Your task to perform on an android device: Add "razer naga" to the cart on amazon, then select checkout. Image 0: 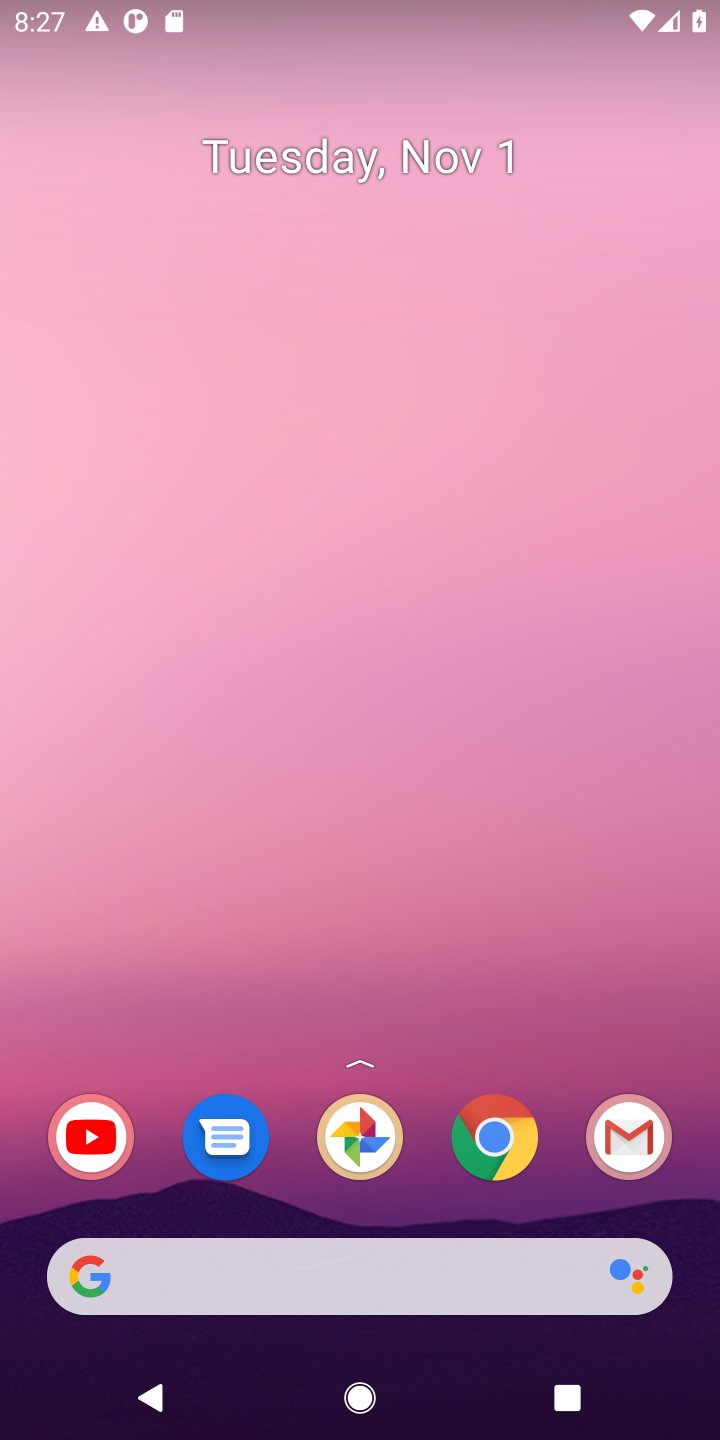
Step 0: click (305, 1266)
Your task to perform on an android device: Add "razer naga" to the cart on amazon, then select checkout. Image 1: 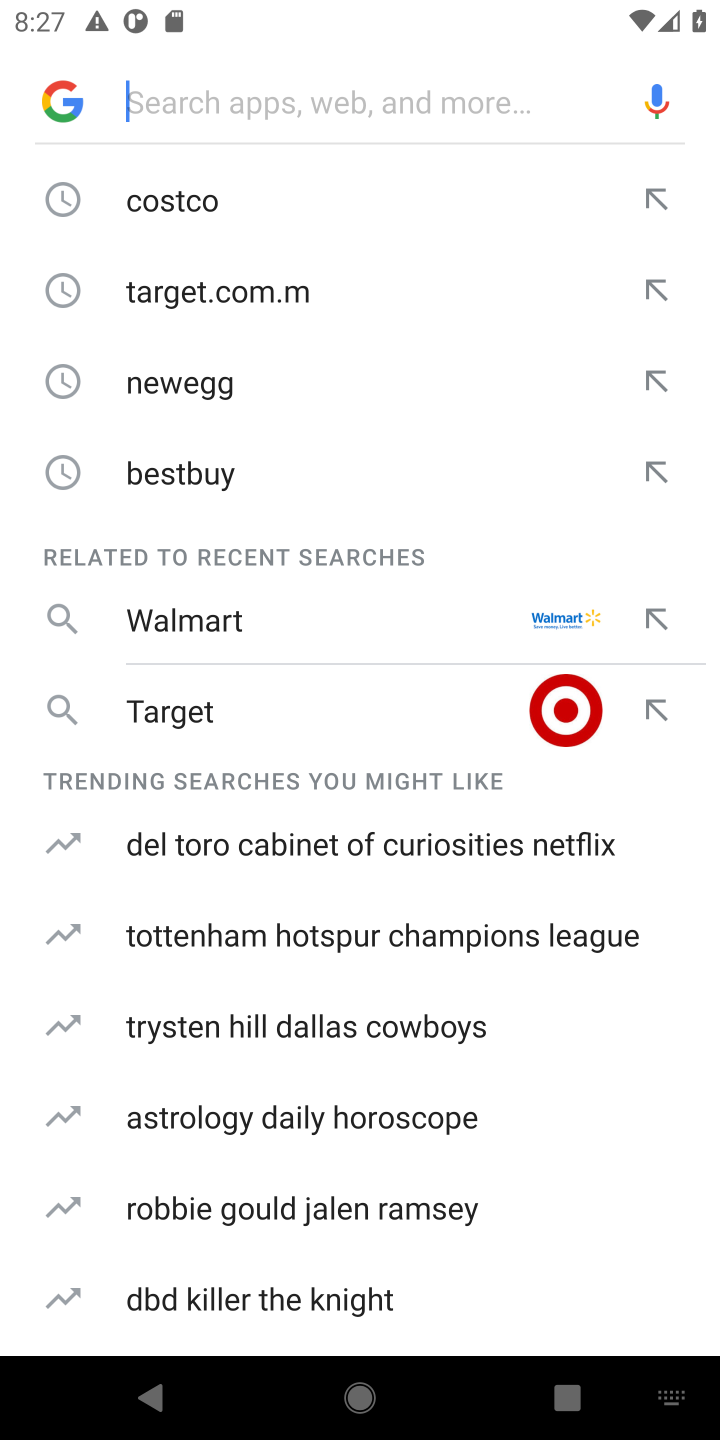
Step 1: type "amazon"
Your task to perform on an android device: Add "razer naga" to the cart on amazon, then select checkout. Image 2: 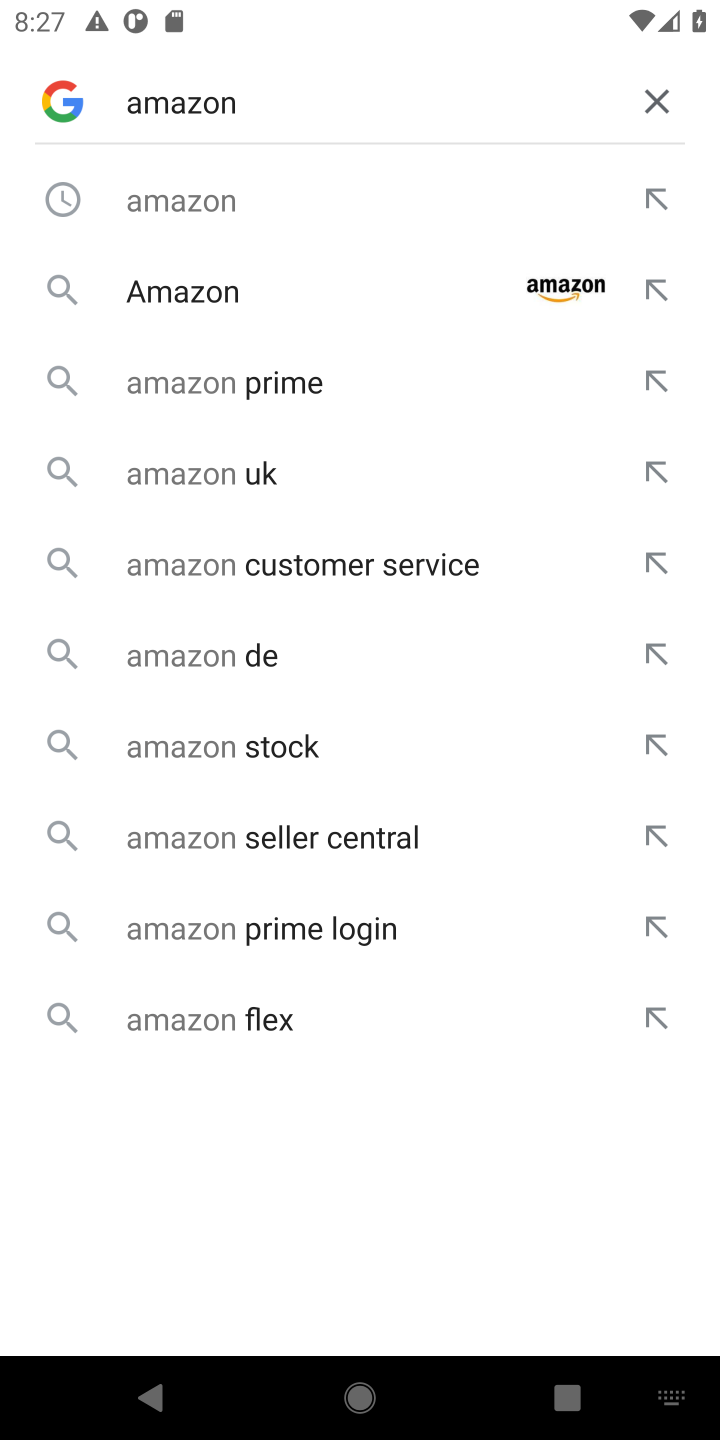
Step 2: click (218, 293)
Your task to perform on an android device: Add "razer naga" to the cart on amazon, then select checkout. Image 3: 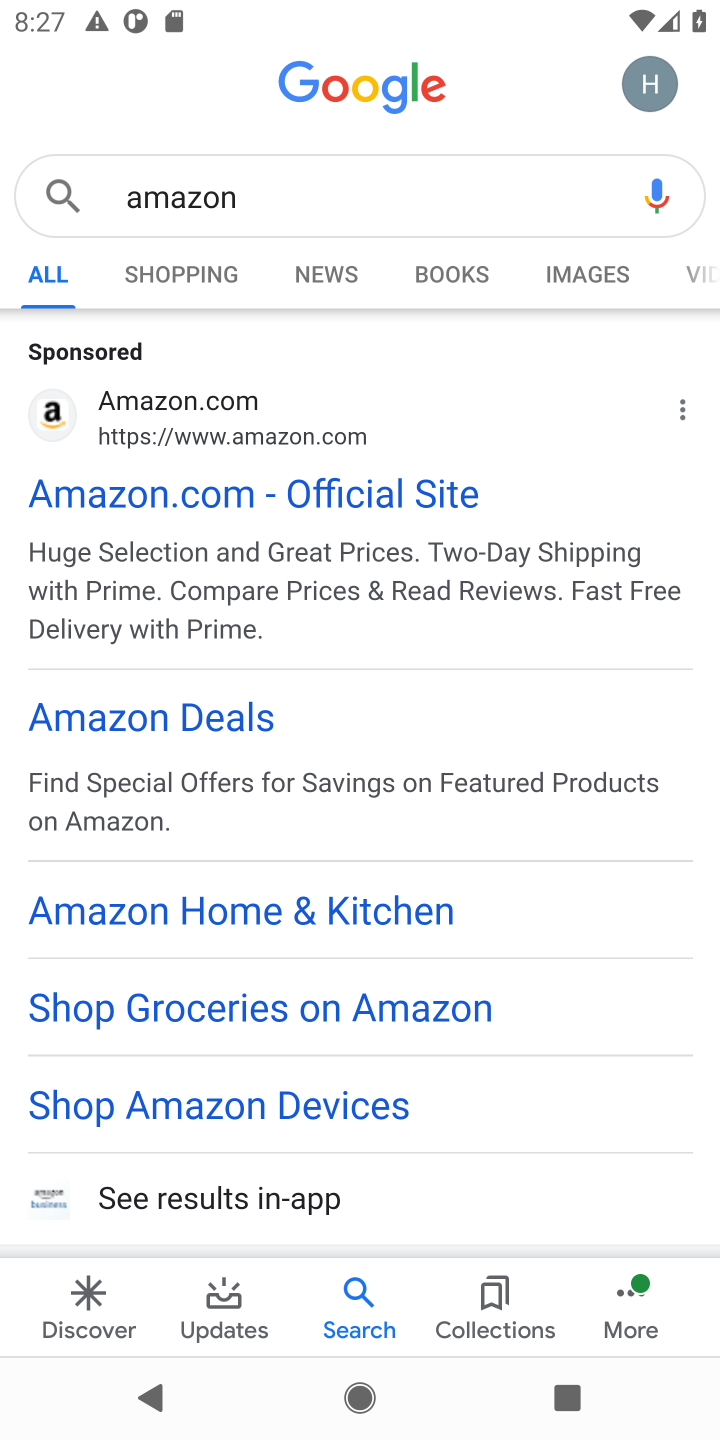
Step 3: click (135, 396)
Your task to perform on an android device: Add "razer naga" to the cart on amazon, then select checkout. Image 4: 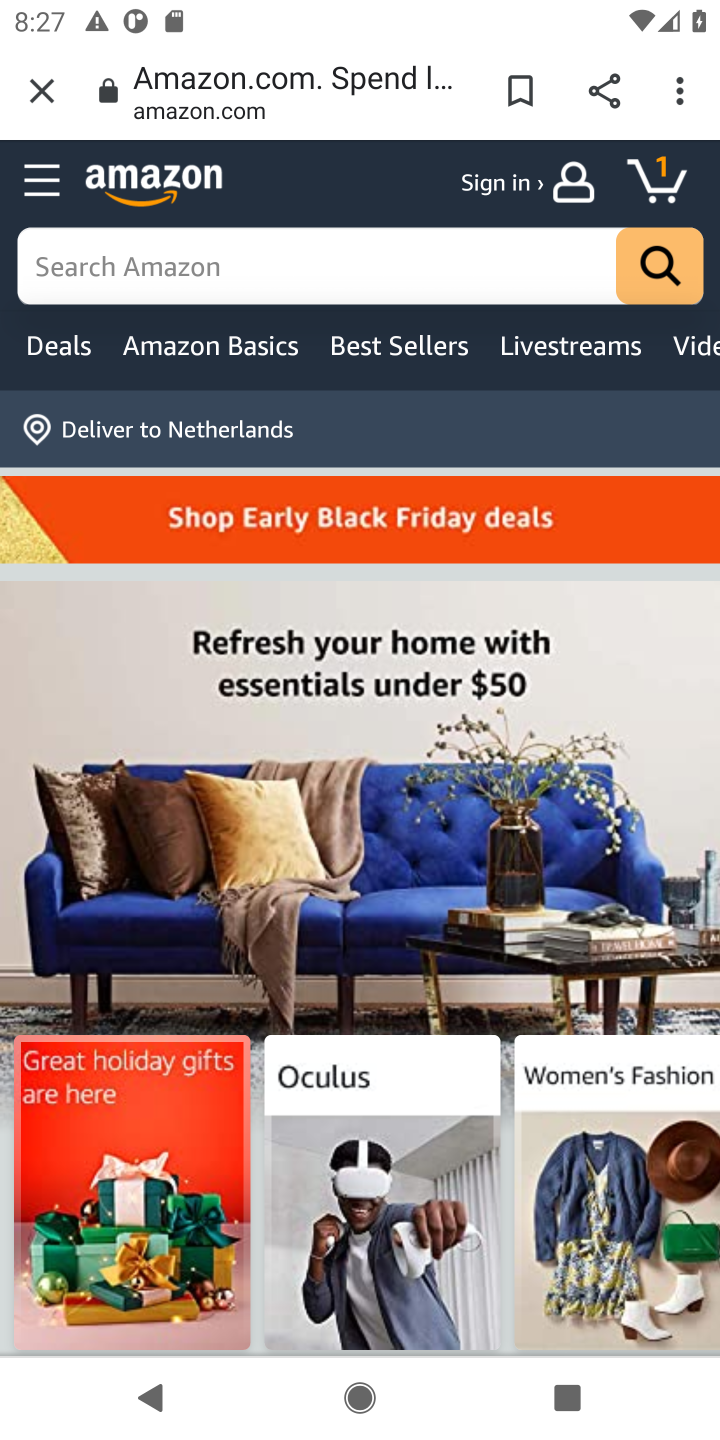
Step 4: click (295, 253)
Your task to perform on an android device: Add "razer naga" to the cart on amazon, then select checkout. Image 5: 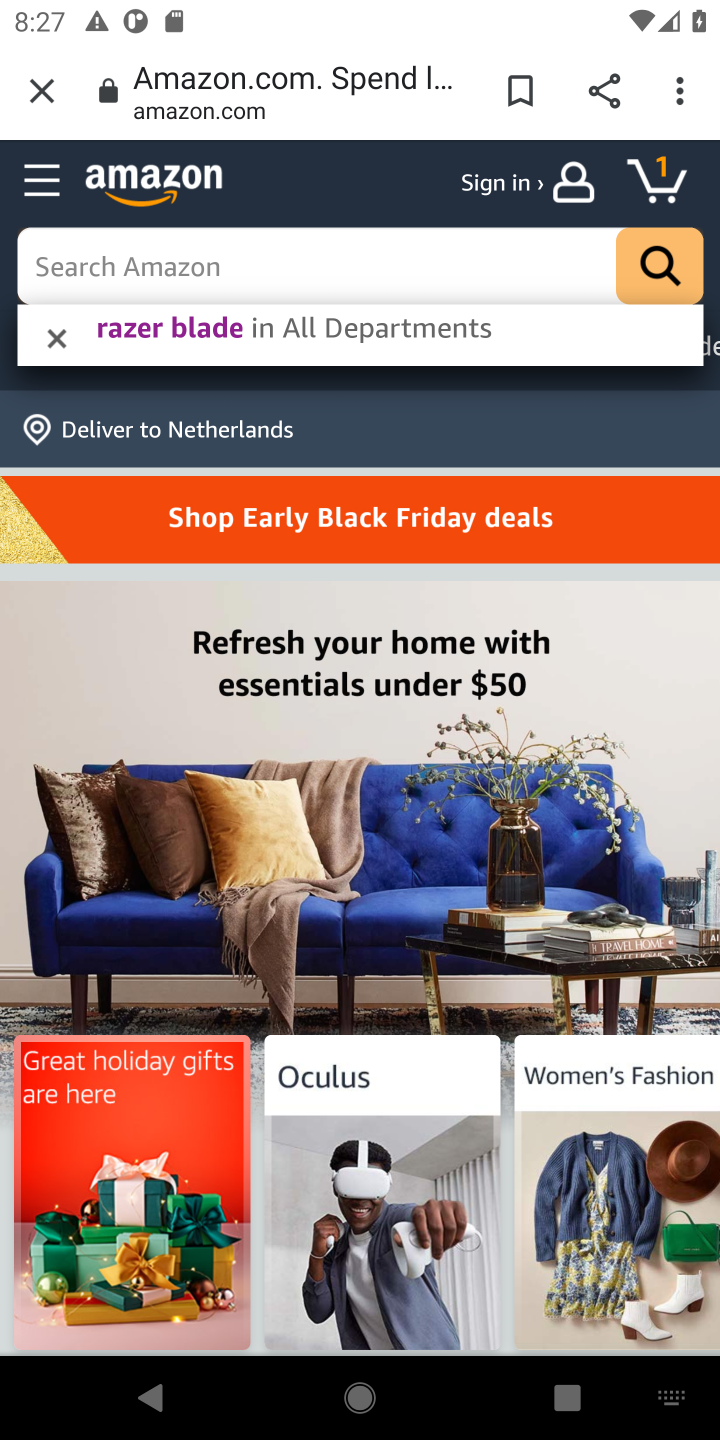
Step 5: type "razer naga"
Your task to perform on an android device: Add "razer naga" to the cart on amazon, then select checkout. Image 6: 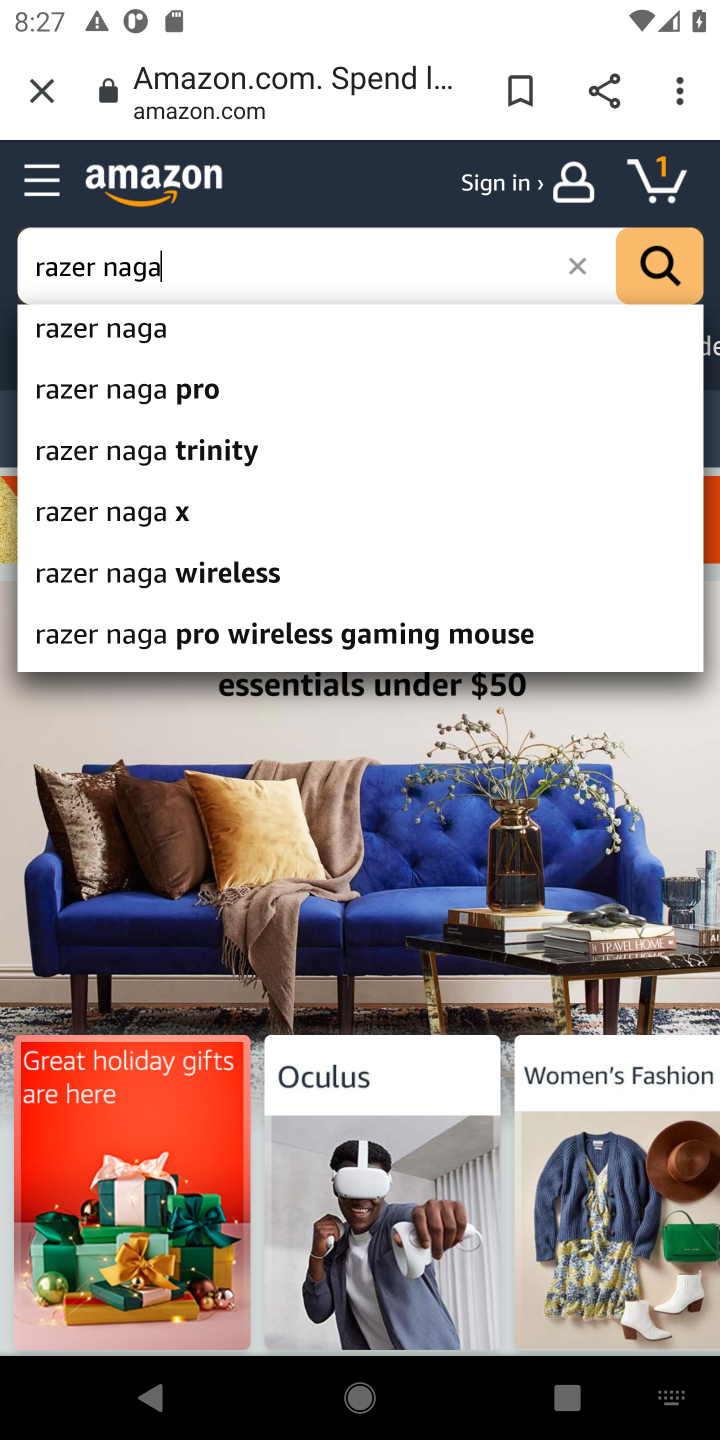
Step 6: click (139, 330)
Your task to perform on an android device: Add "razer naga" to the cart on amazon, then select checkout. Image 7: 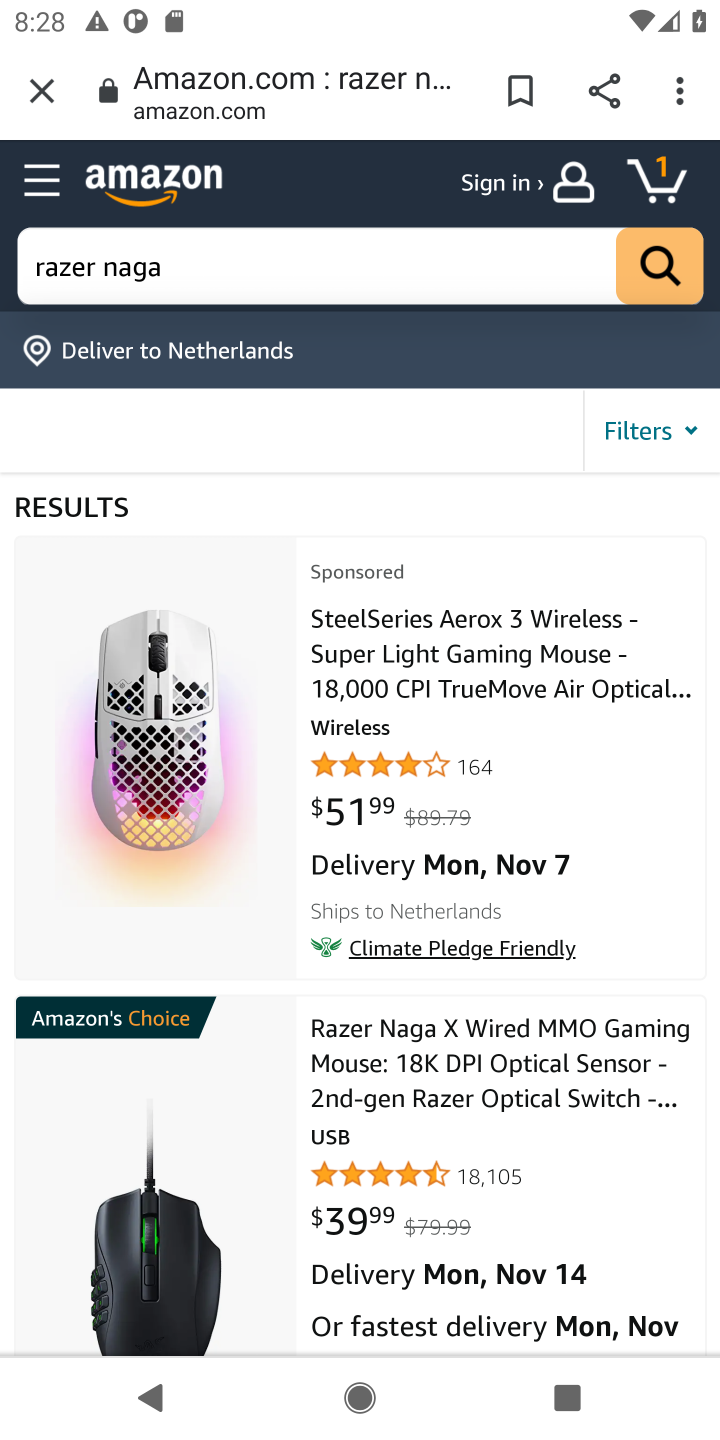
Step 7: click (414, 668)
Your task to perform on an android device: Add "razer naga" to the cart on amazon, then select checkout. Image 8: 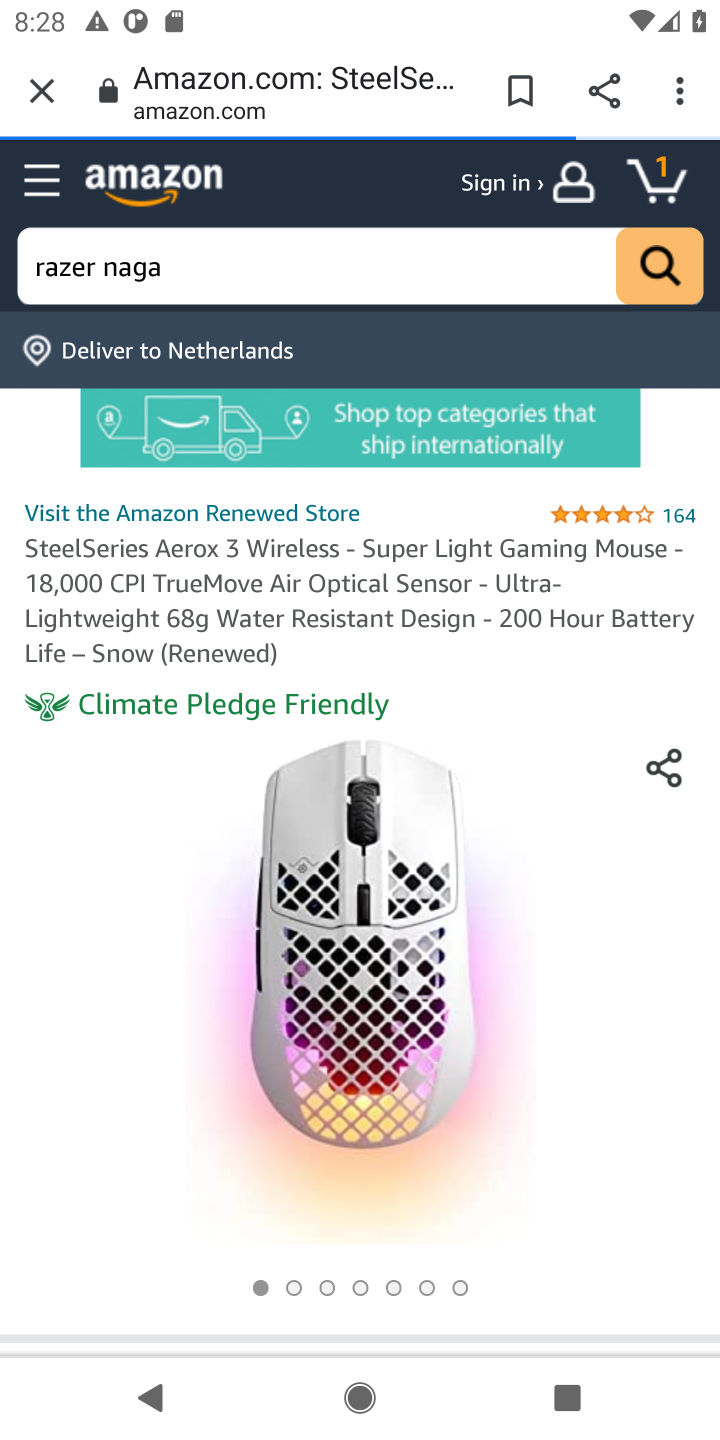
Step 8: drag from (393, 1045) to (451, 590)
Your task to perform on an android device: Add "razer naga" to the cart on amazon, then select checkout. Image 9: 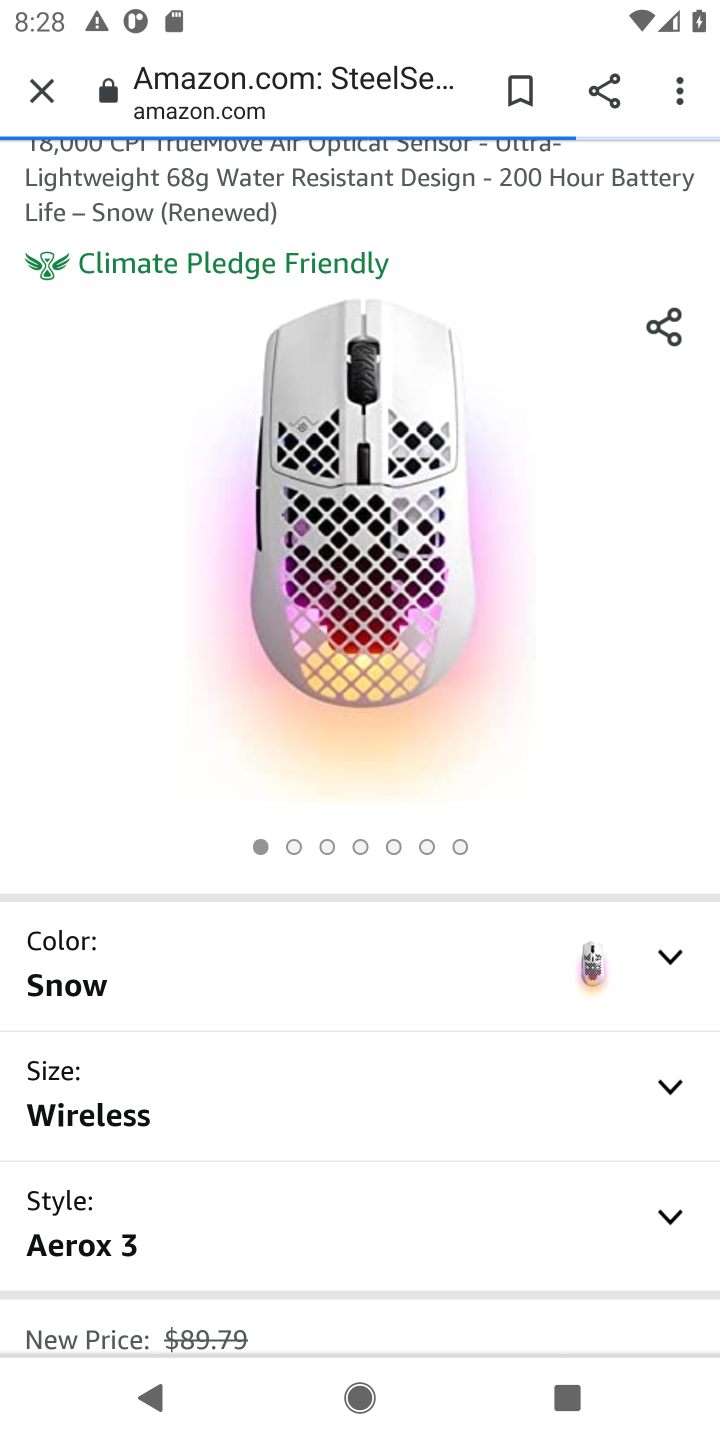
Step 9: drag from (350, 1124) to (400, 627)
Your task to perform on an android device: Add "razer naga" to the cart on amazon, then select checkout. Image 10: 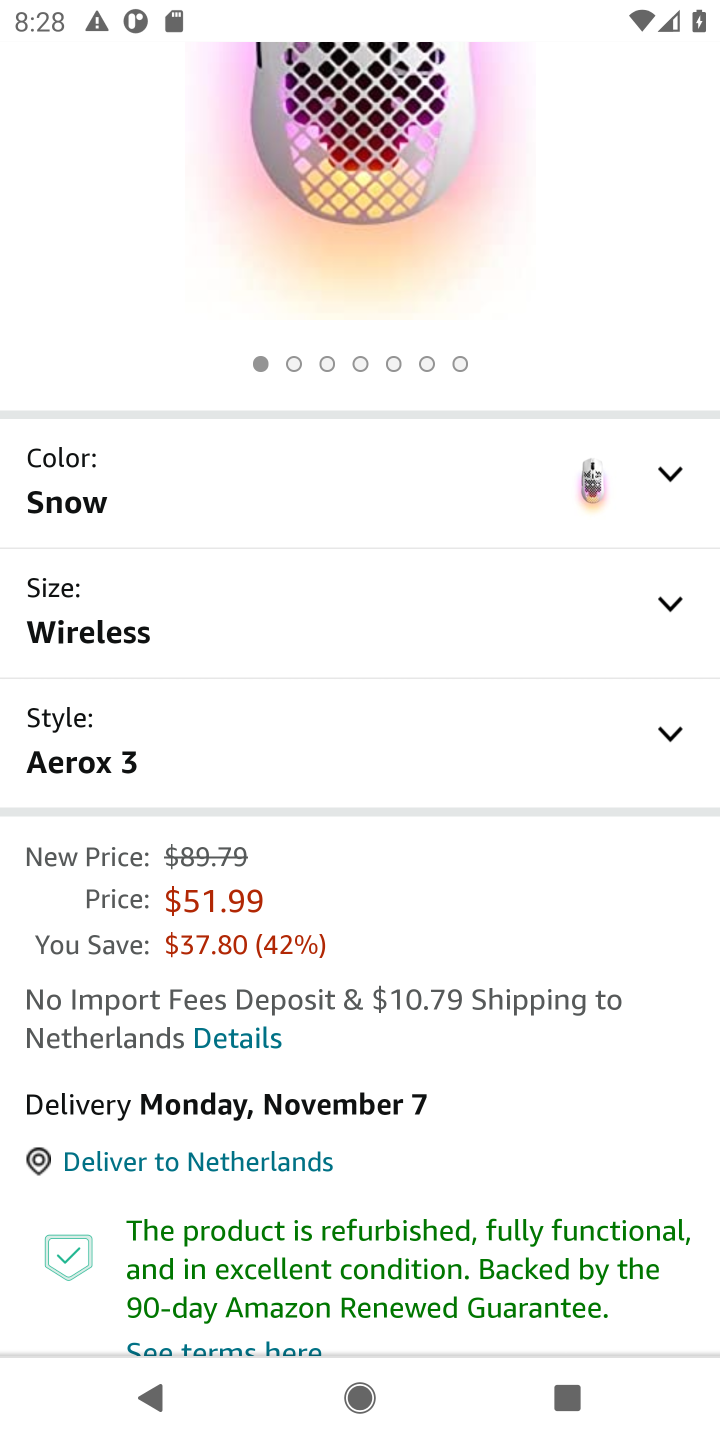
Step 10: drag from (412, 1070) to (451, 654)
Your task to perform on an android device: Add "razer naga" to the cart on amazon, then select checkout. Image 11: 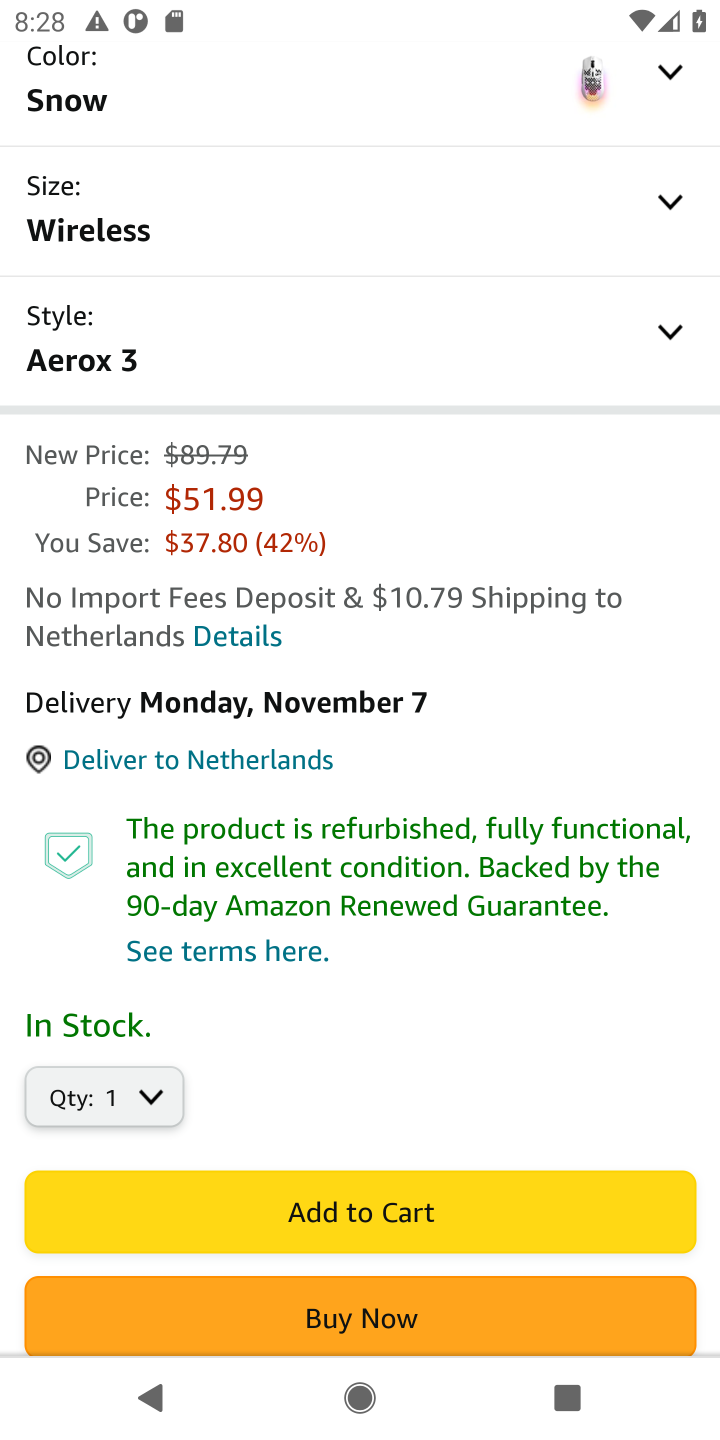
Step 11: click (345, 1214)
Your task to perform on an android device: Add "razer naga" to the cart on amazon, then select checkout. Image 12: 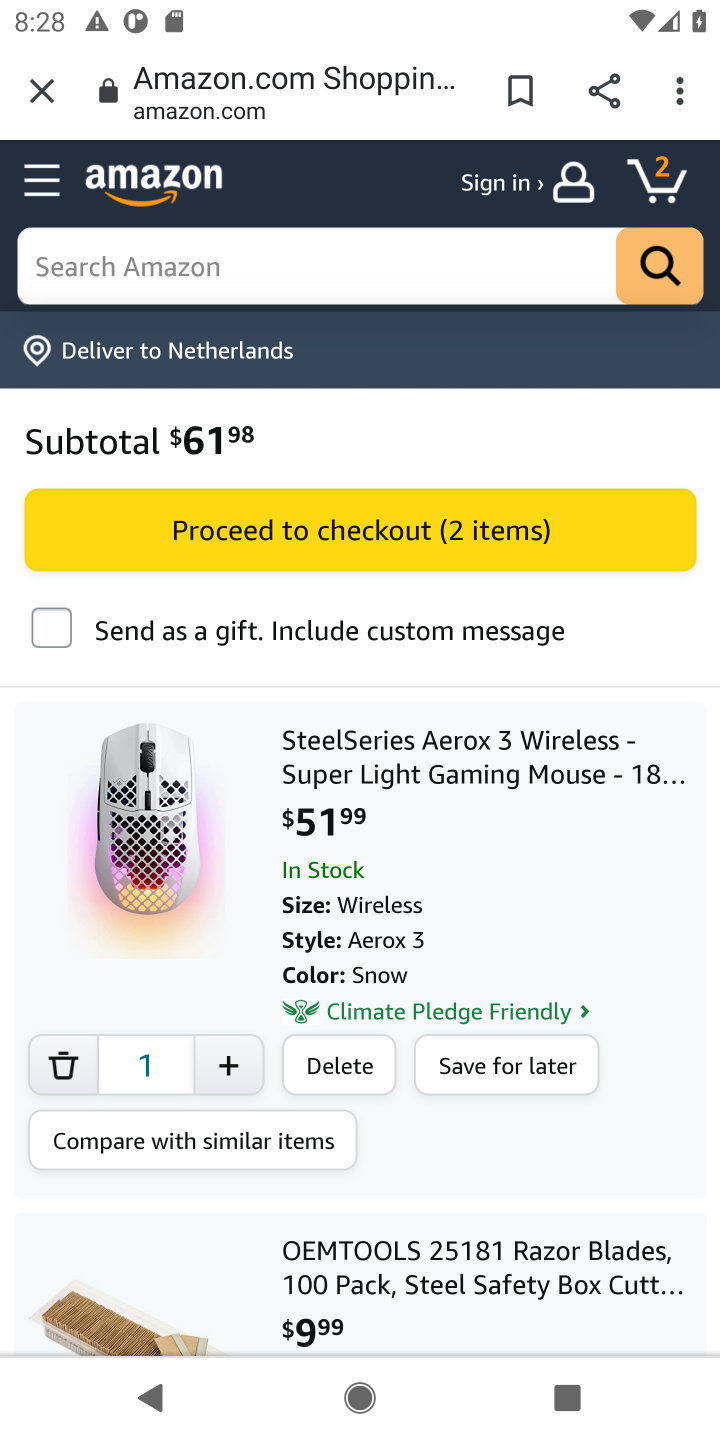
Step 12: click (403, 524)
Your task to perform on an android device: Add "razer naga" to the cart on amazon, then select checkout. Image 13: 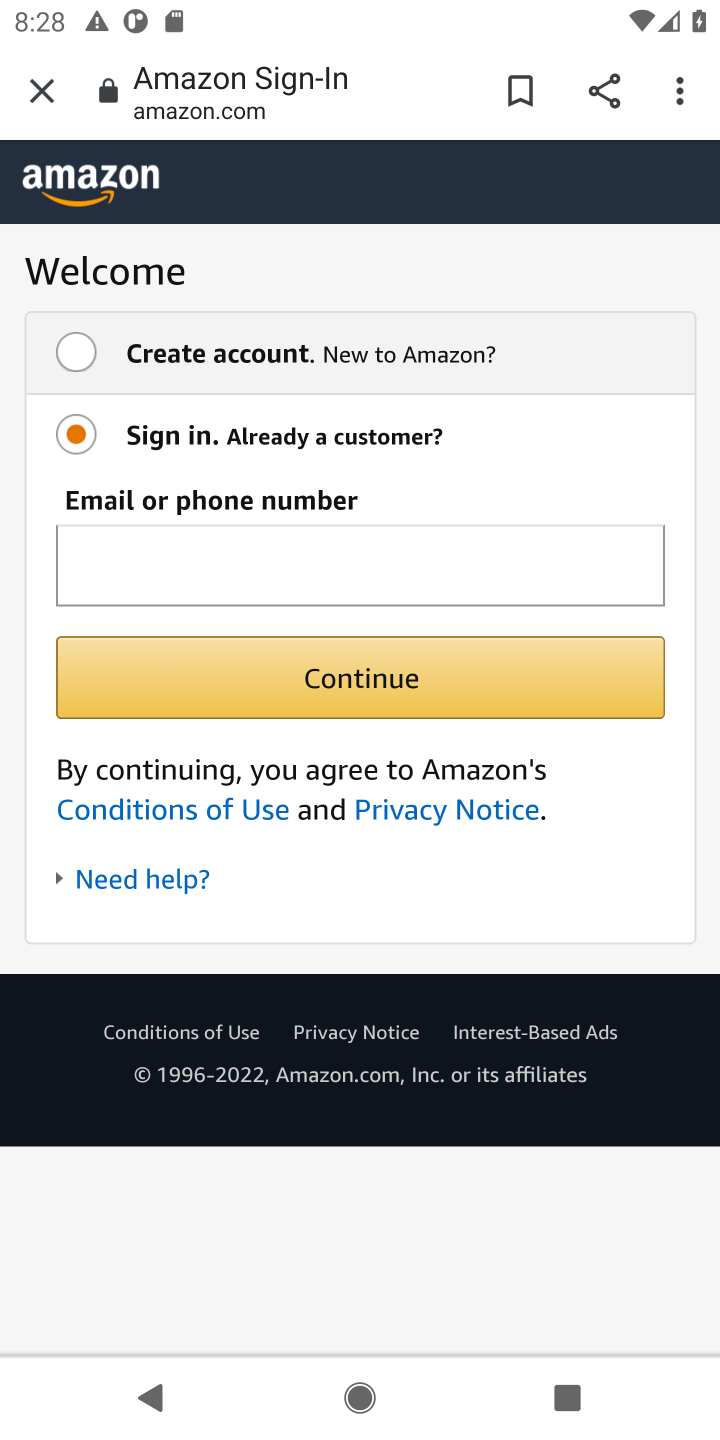
Step 13: task complete